Your task to perform on an android device: Go to wifi settings Image 0: 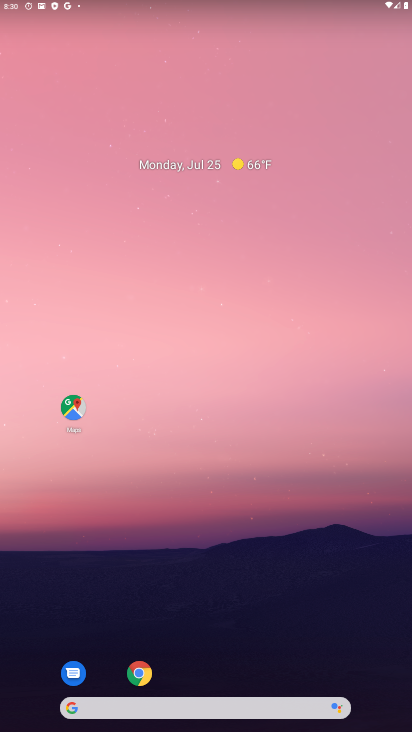
Step 0: drag from (208, 688) to (222, 108)
Your task to perform on an android device: Go to wifi settings Image 1: 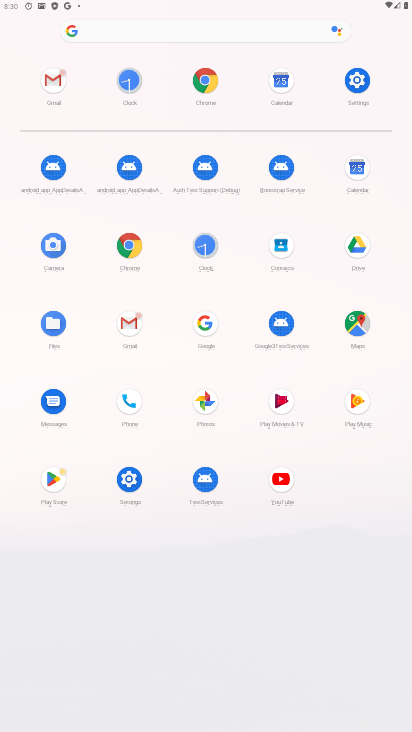
Step 1: click (361, 76)
Your task to perform on an android device: Go to wifi settings Image 2: 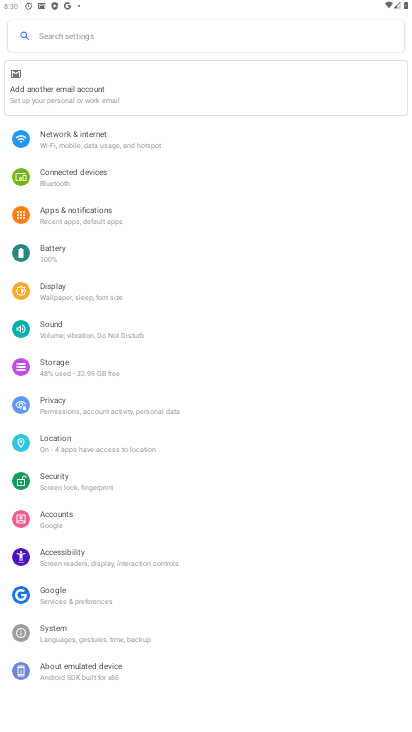
Step 2: click (68, 138)
Your task to perform on an android device: Go to wifi settings Image 3: 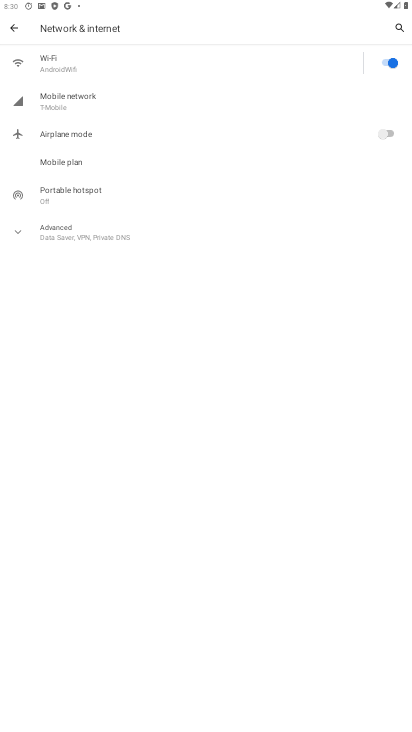
Step 3: click (84, 77)
Your task to perform on an android device: Go to wifi settings Image 4: 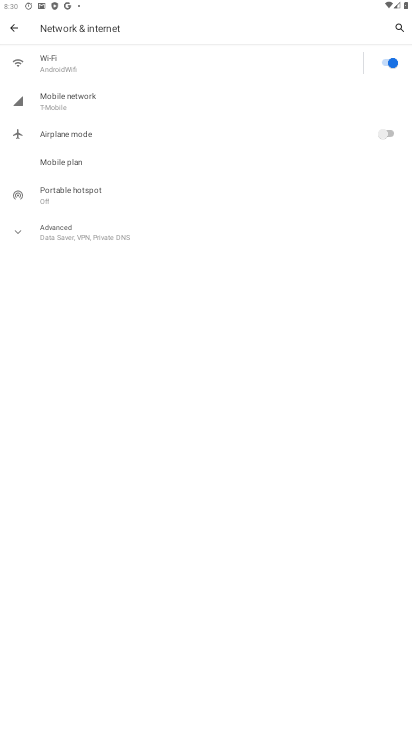
Step 4: click (84, 77)
Your task to perform on an android device: Go to wifi settings Image 5: 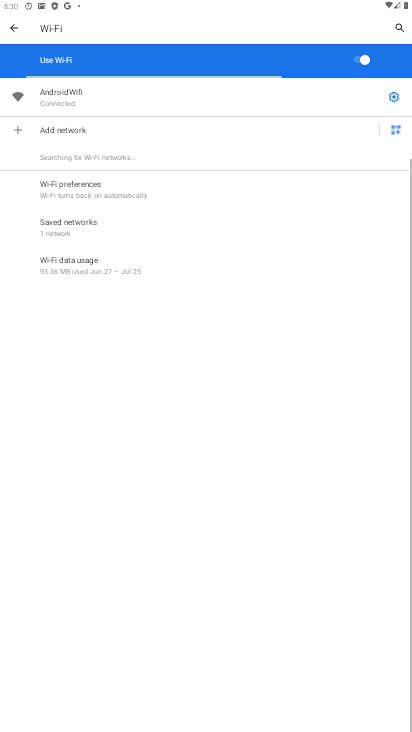
Step 5: drag from (245, 438) to (269, 159)
Your task to perform on an android device: Go to wifi settings Image 6: 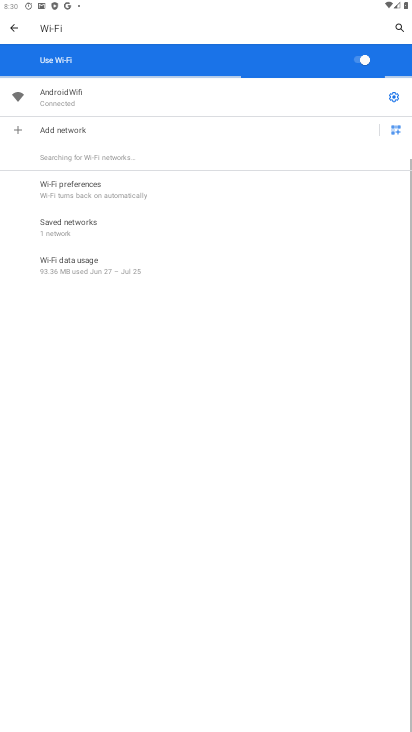
Step 6: click (391, 90)
Your task to perform on an android device: Go to wifi settings Image 7: 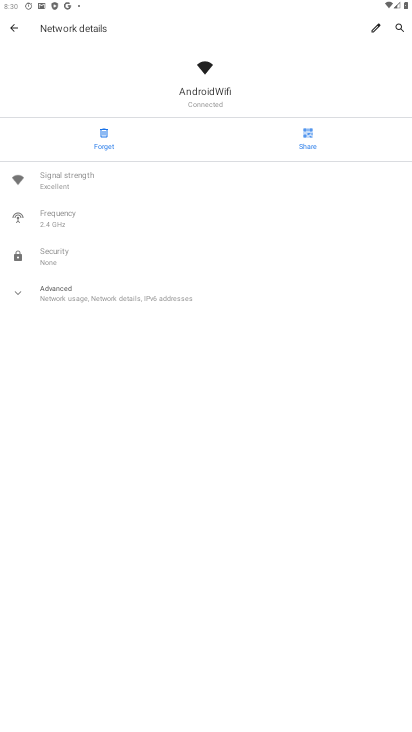
Step 7: task complete